Your task to perform on an android device: How much does a 3 bedroom apartment rent for in Austin? Image 0: 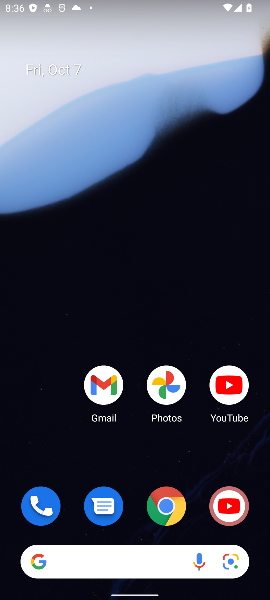
Step 0: click (169, 508)
Your task to perform on an android device: How much does a 3 bedroom apartment rent for in Austin? Image 1: 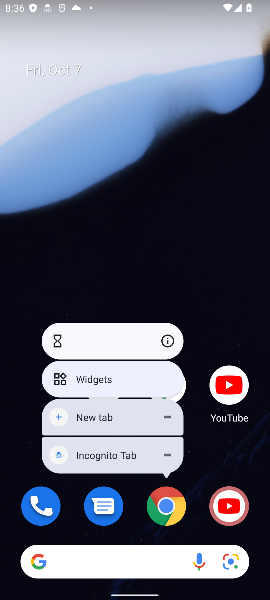
Step 1: click (160, 505)
Your task to perform on an android device: How much does a 3 bedroom apartment rent for in Austin? Image 2: 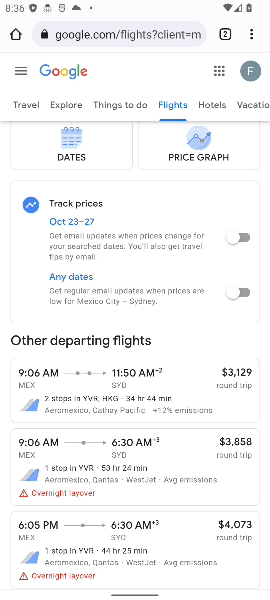
Step 2: click (162, 33)
Your task to perform on an android device: How much does a 3 bedroom apartment rent for in Austin? Image 3: 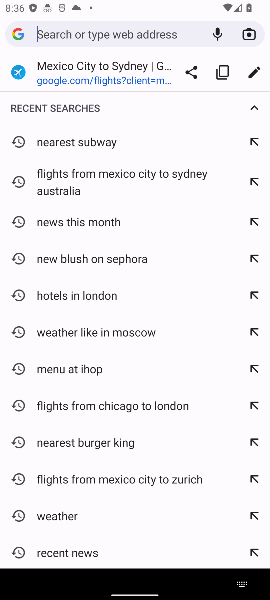
Step 3: type "3 bedroom apartment rent for in Austin"
Your task to perform on an android device: How much does a 3 bedroom apartment rent for in Austin? Image 4: 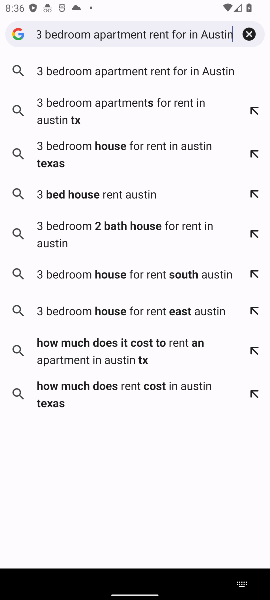
Step 4: click (136, 70)
Your task to perform on an android device: How much does a 3 bedroom apartment rent for in Austin? Image 5: 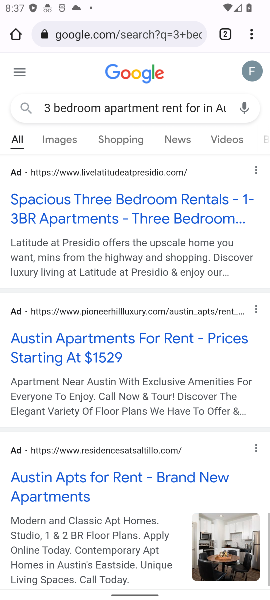
Step 5: click (88, 341)
Your task to perform on an android device: How much does a 3 bedroom apartment rent for in Austin? Image 6: 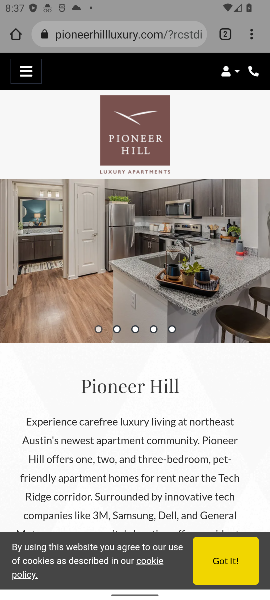
Step 6: task complete